Your task to perform on an android device: check out phone information Image 0: 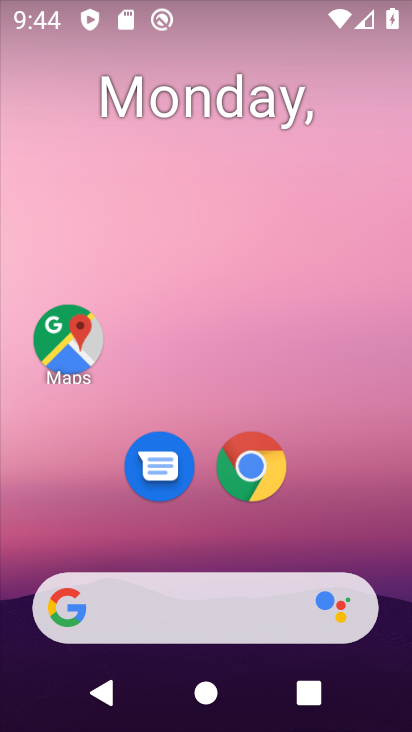
Step 0: drag from (192, 399) to (205, 127)
Your task to perform on an android device: check out phone information Image 1: 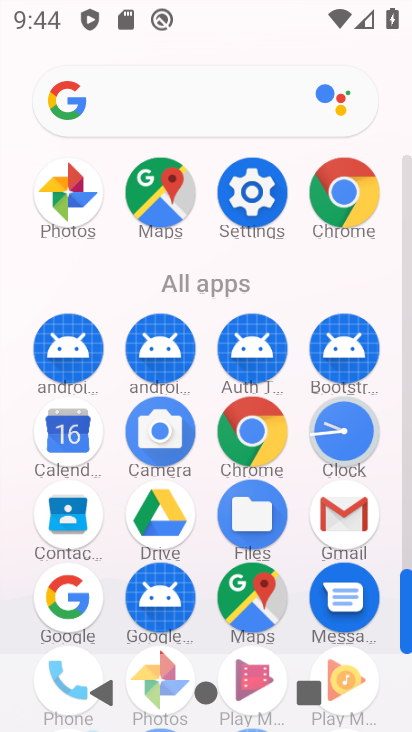
Step 1: click (256, 198)
Your task to perform on an android device: check out phone information Image 2: 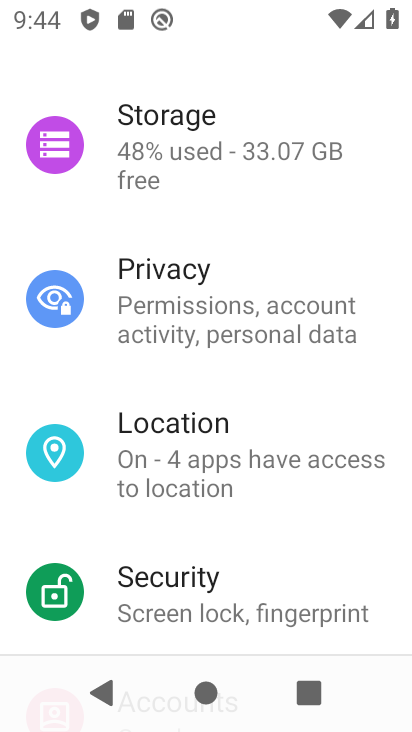
Step 2: task complete